Your task to perform on an android device: choose inbox layout in the gmail app Image 0: 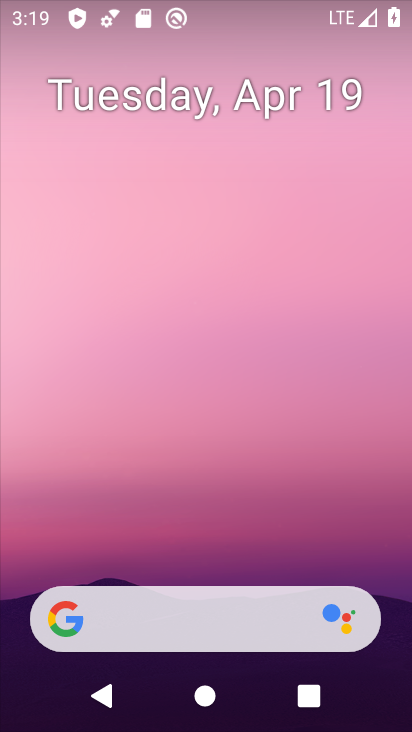
Step 0: drag from (231, 532) to (223, 138)
Your task to perform on an android device: choose inbox layout in the gmail app Image 1: 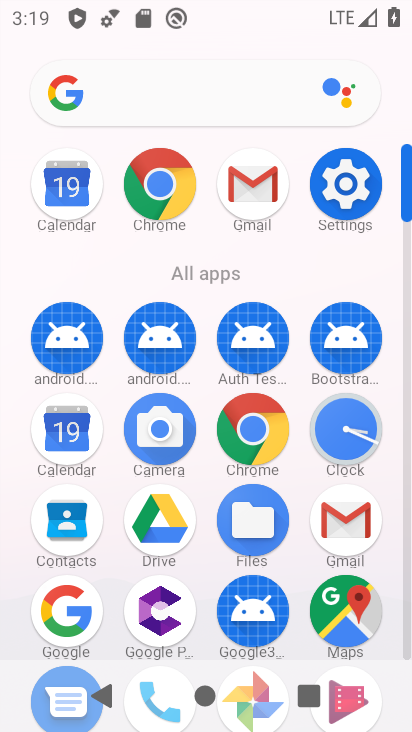
Step 1: click (351, 522)
Your task to perform on an android device: choose inbox layout in the gmail app Image 2: 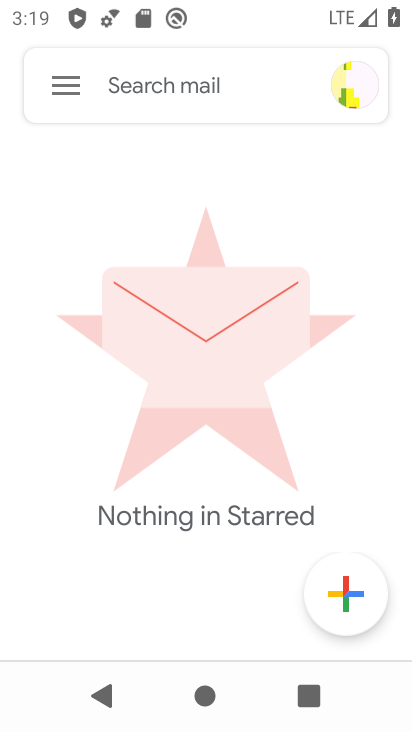
Step 2: click (69, 86)
Your task to perform on an android device: choose inbox layout in the gmail app Image 3: 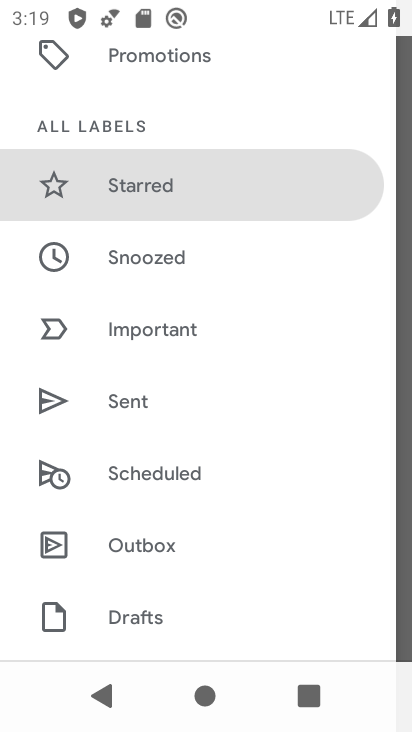
Step 3: drag from (171, 398) to (174, 296)
Your task to perform on an android device: choose inbox layout in the gmail app Image 4: 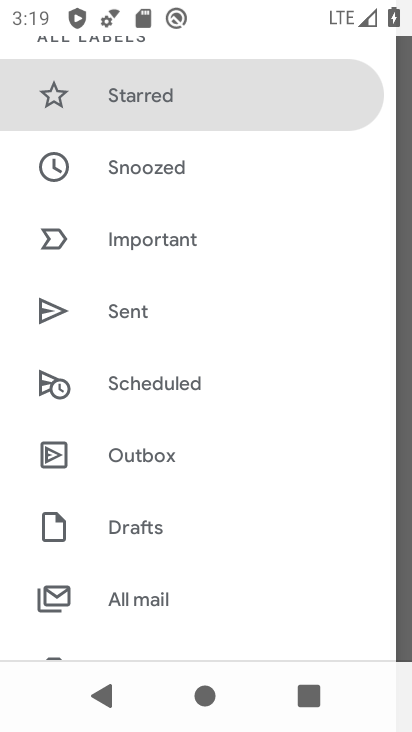
Step 4: drag from (191, 428) to (207, 335)
Your task to perform on an android device: choose inbox layout in the gmail app Image 5: 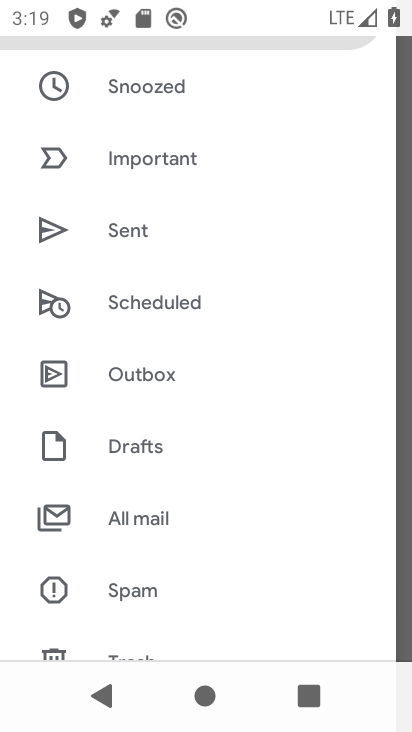
Step 5: drag from (193, 453) to (203, 363)
Your task to perform on an android device: choose inbox layout in the gmail app Image 6: 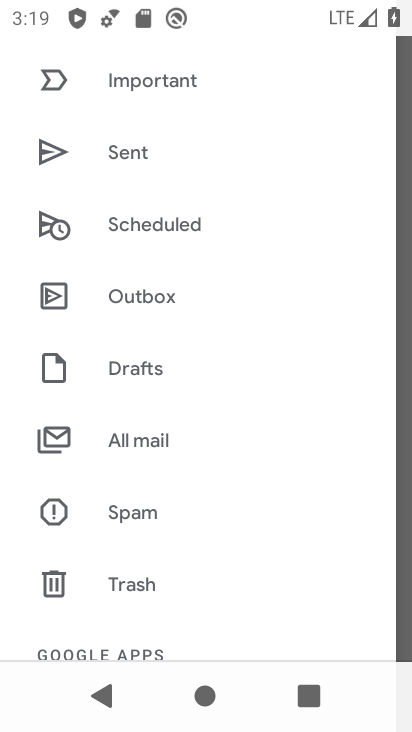
Step 6: drag from (178, 532) to (227, 435)
Your task to perform on an android device: choose inbox layout in the gmail app Image 7: 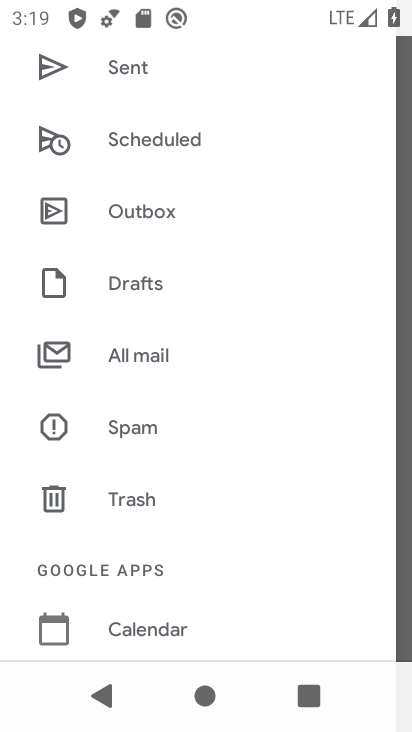
Step 7: drag from (182, 543) to (215, 484)
Your task to perform on an android device: choose inbox layout in the gmail app Image 8: 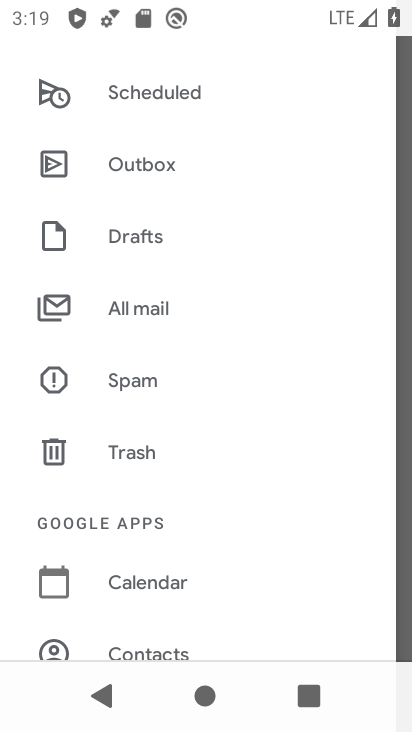
Step 8: drag from (213, 562) to (227, 475)
Your task to perform on an android device: choose inbox layout in the gmail app Image 9: 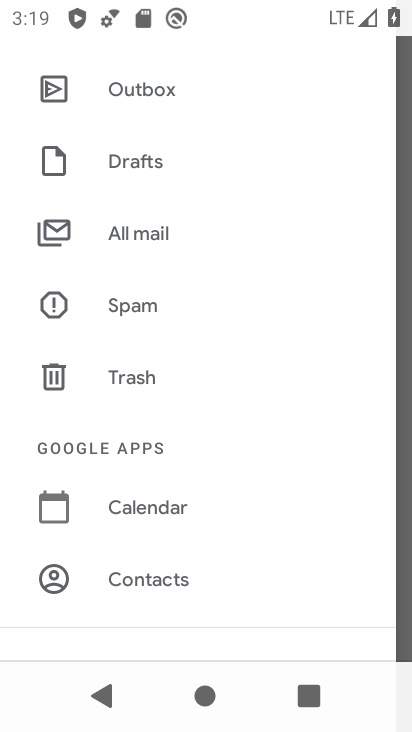
Step 9: drag from (217, 556) to (260, 465)
Your task to perform on an android device: choose inbox layout in the gmail app Image 10: 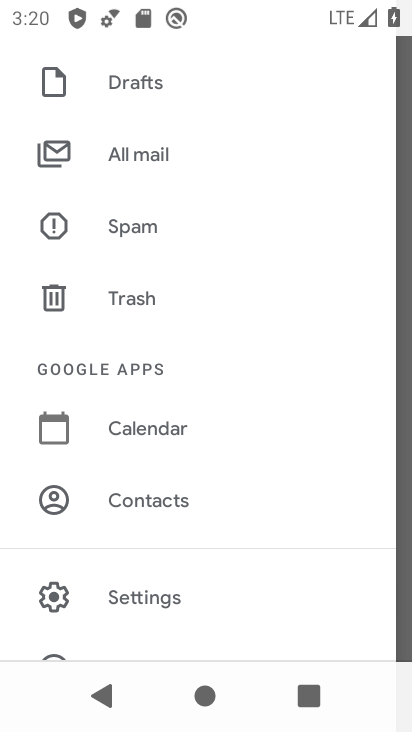
Step 10: click (168, 594)
Your task to perform on an android device: choose inbox layout in the gmail app Image 11: 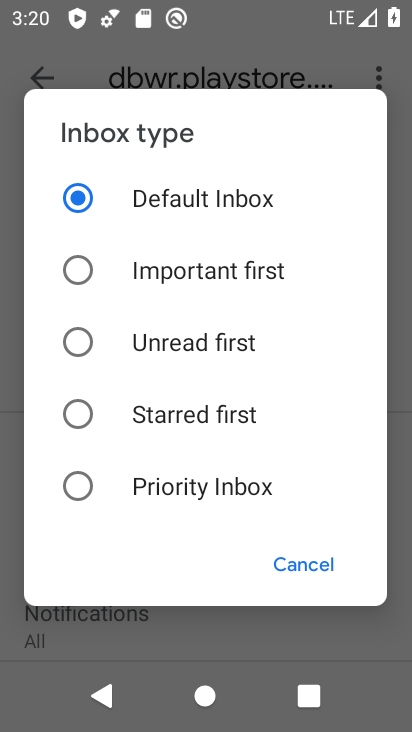
Step 11: click (80, 342)
Your task to perform on an android device: choose inbox layout in the gmail app Image 12: 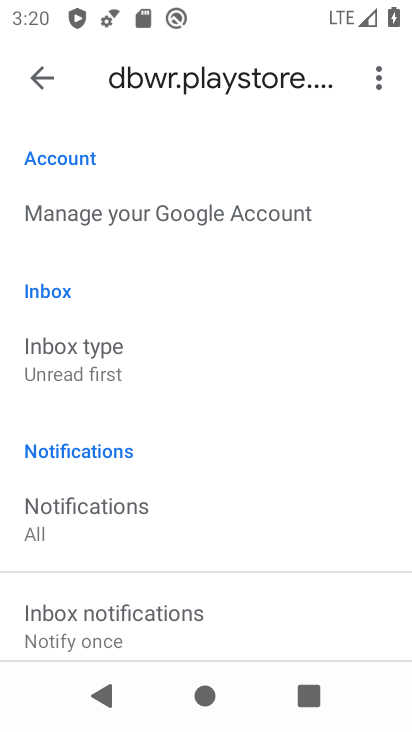
Step 12: task complete